Your task to perform on an android device: delete a single message in the gmail app Image 0: 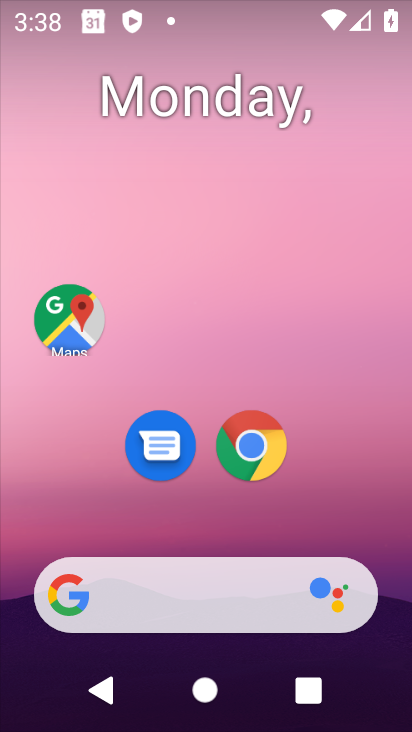
Step 0: drag from (319, 495) to (310, 78)
Your task to perform on an android device: delete a single message in the gmail app Image 1: 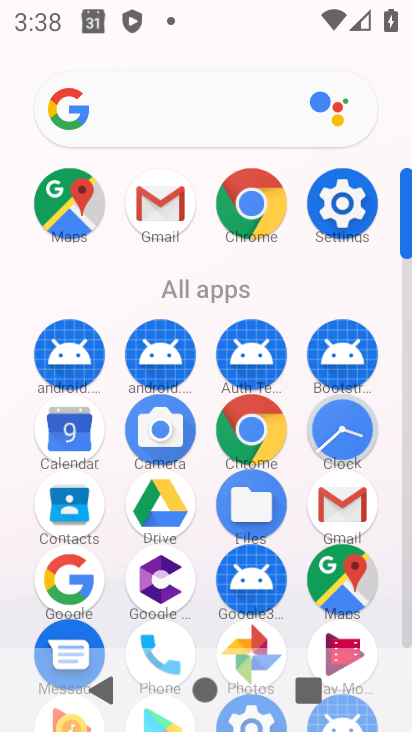
Step 1: click (331, 508)
Your task to perform on an android device: delete a single message in the gmail app Image 2: 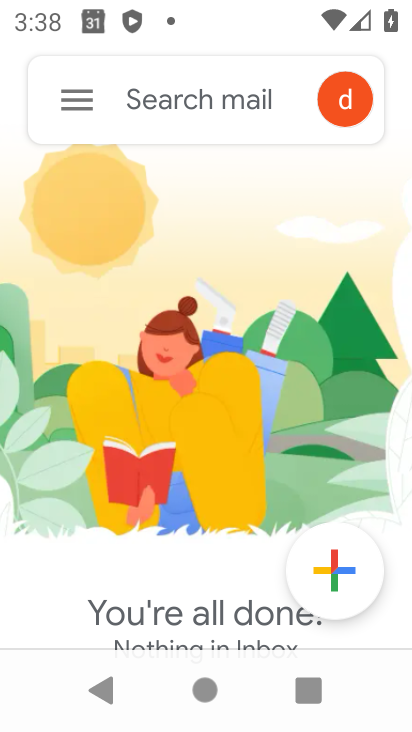
Step 2: task complete